Your task to perform on an android device: Go to CNN.com Image 0: 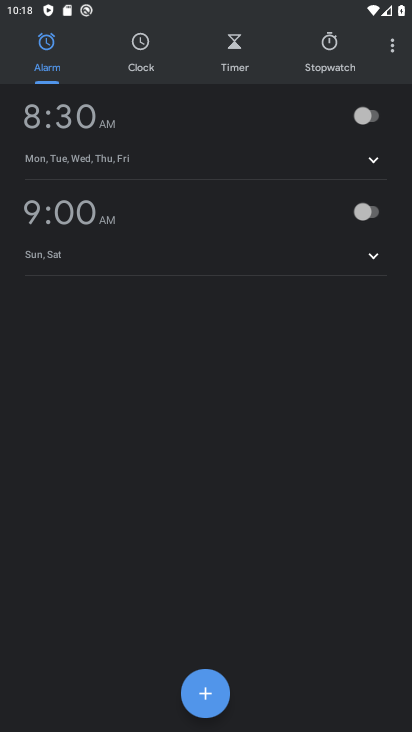
Step 0: press home button
Your task to perform on an android device: Go to CNN.com Image 1: 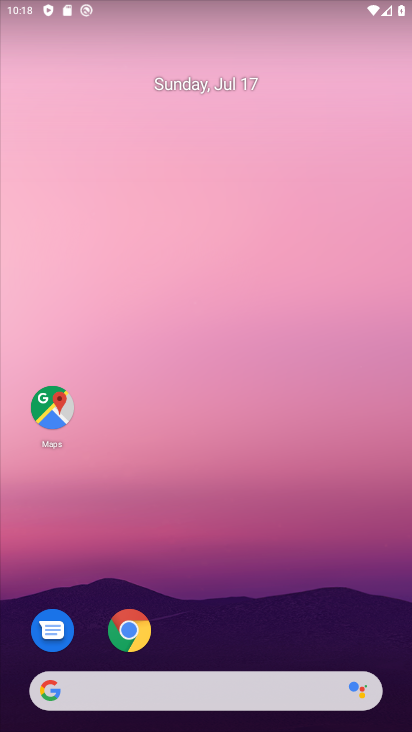
Step 1: click (131, 633)
Your task to perform on an android device: Go to CNN.com Image 2: 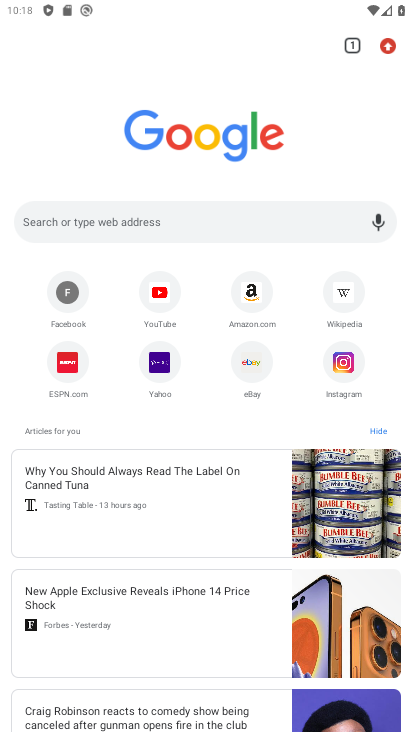
Step 2: click (130, 221)
Your task to perform on an android device: Go to CNN.com Image 3: 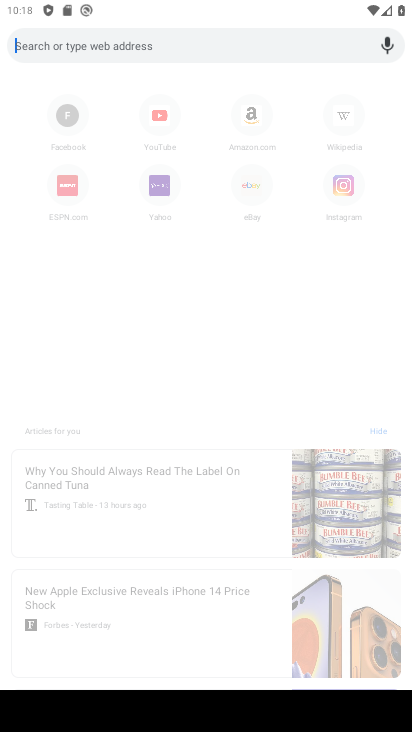
Step 3: type "CNN.com"
Your task to perform on an android device: Go to CNN.com Image 4: 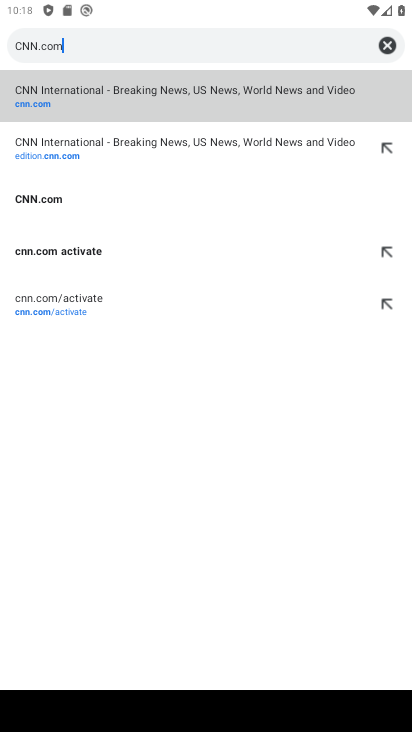
Step 4: click (65, 101)
Your task to perform on an android device: Go to CNN.com Image 5: 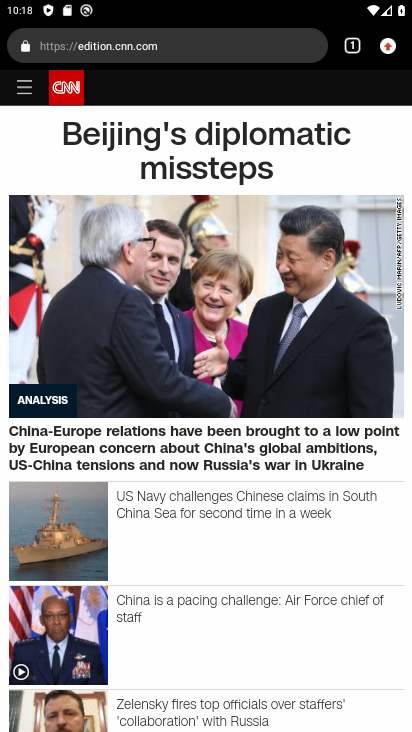
Step 5: task complete